Your task to perform on an android device: Open CNN.com Image 0: 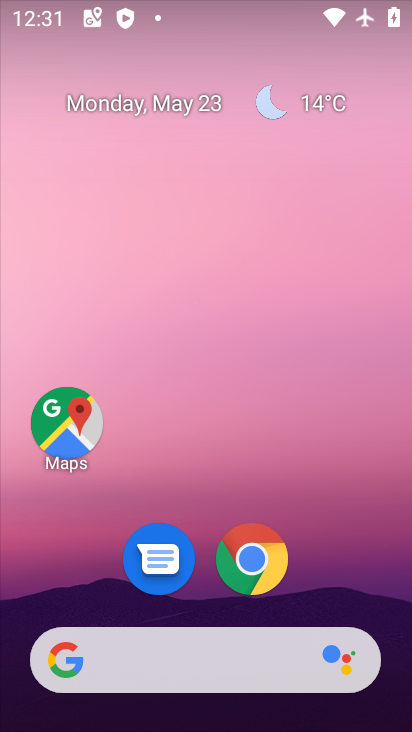
Step 0: click (250, 559)
Your task to perform on an android device: Open CNN.com Image 1: 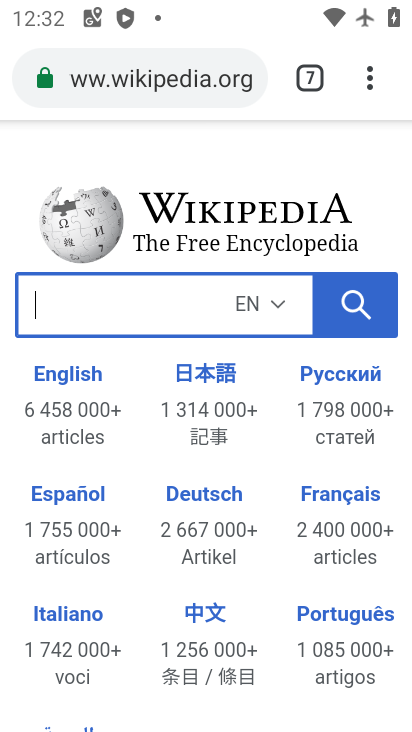
Step 1: click (108, 86)
Your task to perform on an android device: Open CNN.com Image 2: 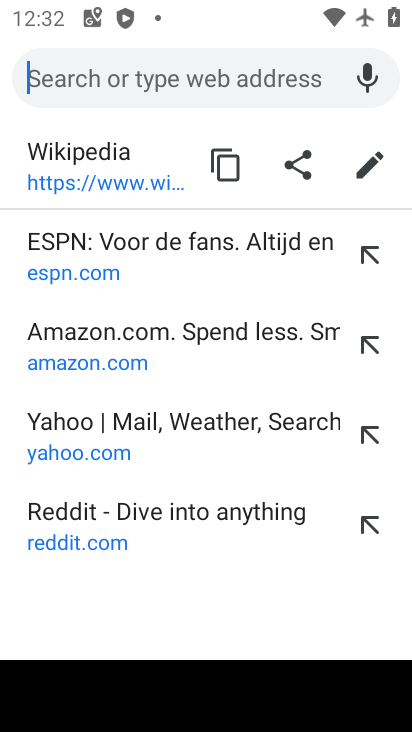
Step 2: type "cnn.com"
Your task to perform on an android device: Open CNN.com Image 3: 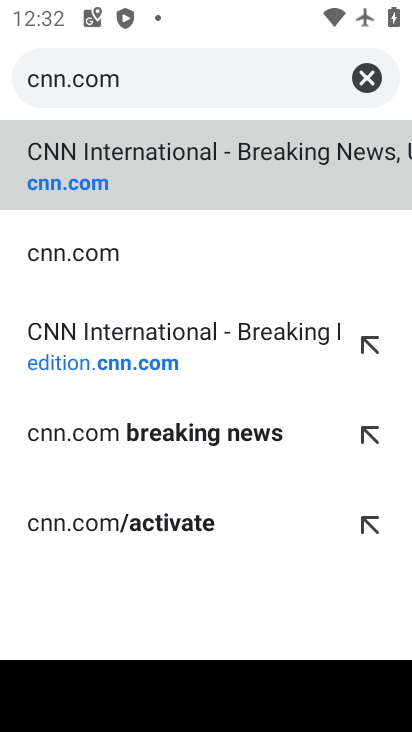
Step 3: click (73, 182)
Your task to perform on an android device: Open CNN.com Image 4: 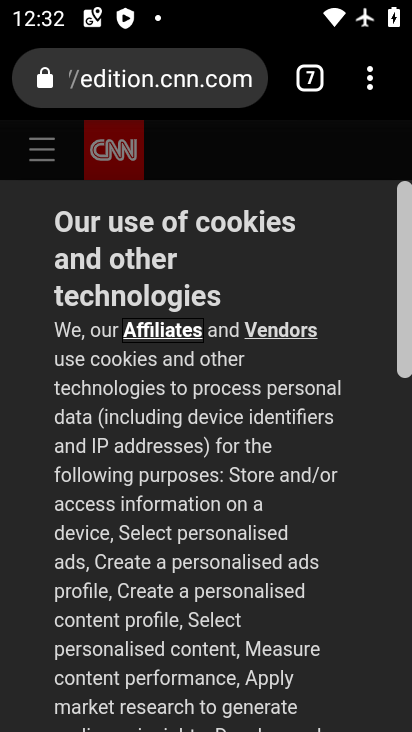
Step 4: task complete